Your task to perform on an android device: Open eBay Image 0: 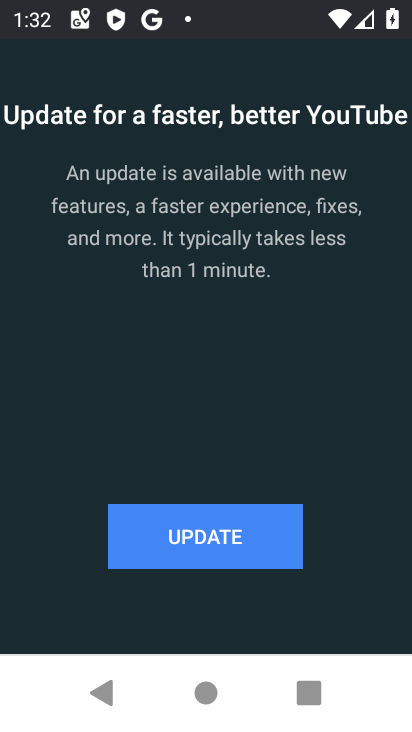
Step 0: press home button
Your task to perform on an android device: Open eBay Image 1: 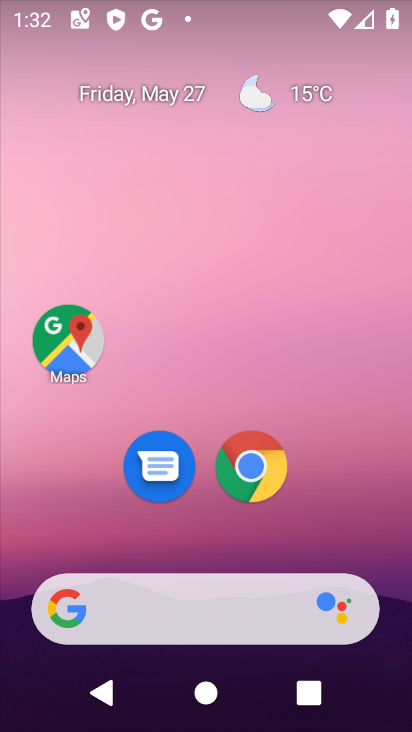
Step 1: click (268, 466)
Your task to perform on an android device: Open eBay Image 2: 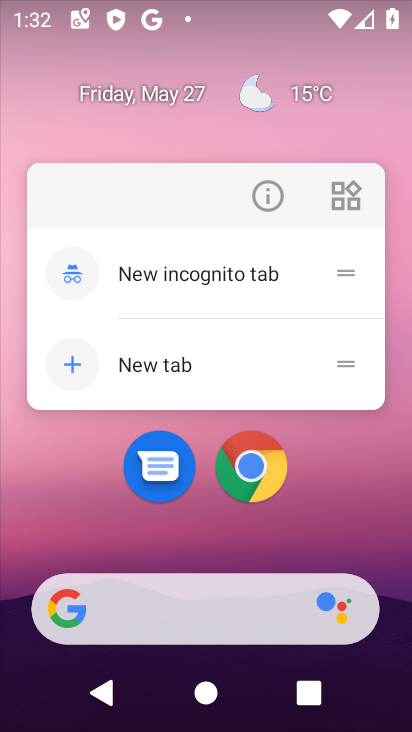
Step 2: click (261, 466)
Your task to perform on an android device: Open eBay Image 3: 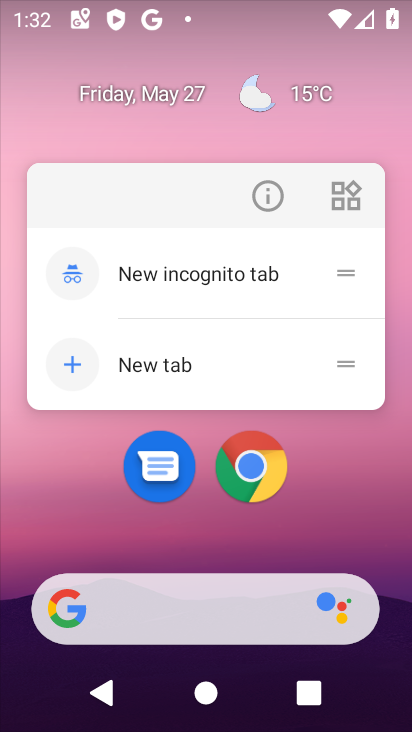
Step 3: click (261, 466)
Your task to perform on an android device: Open eBay Image 4: 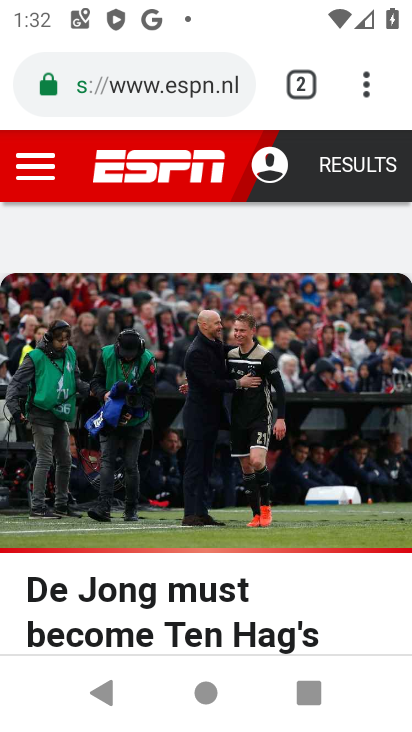
Step 4: drag from (373, 82) to (300, 254)
Your task to perform on an android device: Open eBay Image 5: 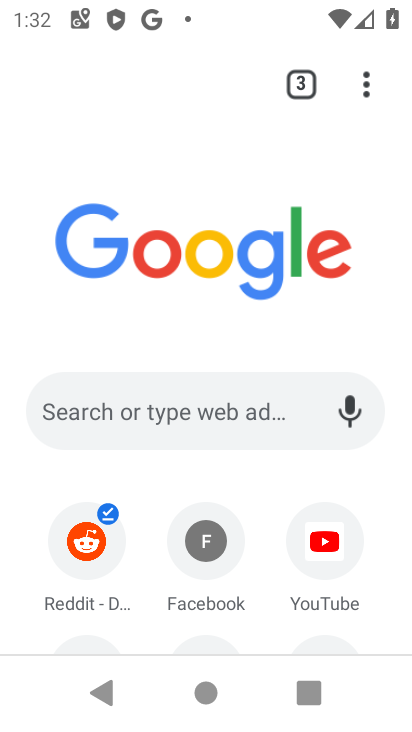
Step 5: drag from (259, 531) to (361, 252)
Your task to perform on an android device: Open eBay Image 6: 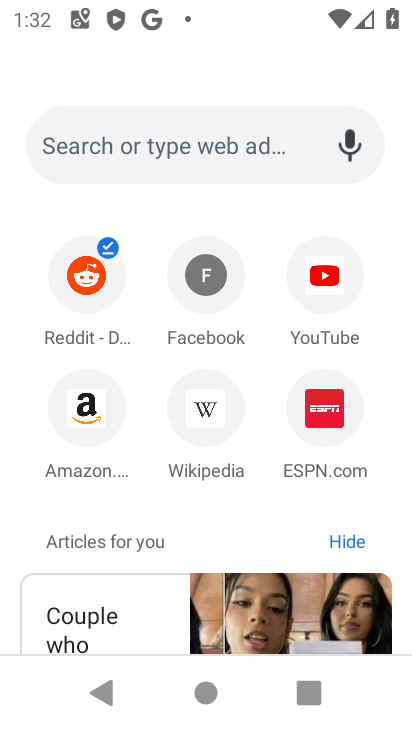
Step 6: click (183, 154)
Your task to perform on an android device: Open eBay Image 7: 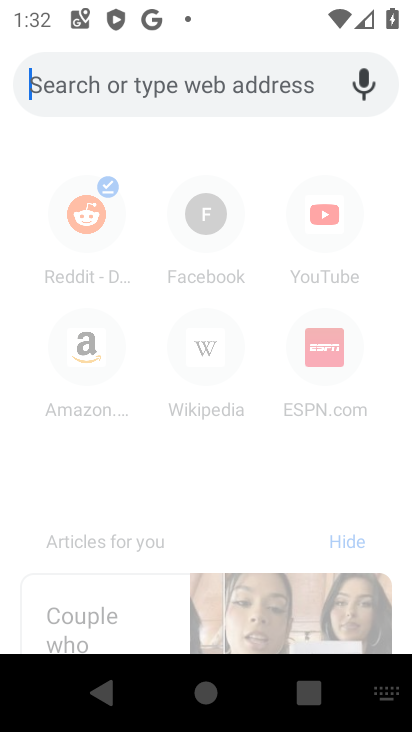
Step 7: type "eBay"
Your task to perform on an android device: Open eBay Image 8: 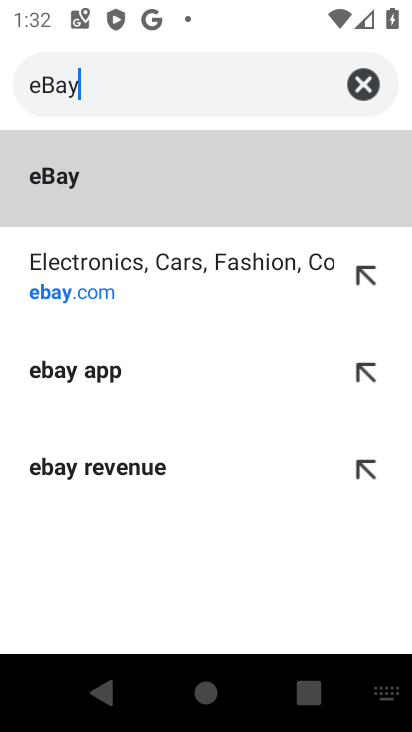
Step 8: click (167, 150)
Your task to perform on an android device: Open eBay Image 9: 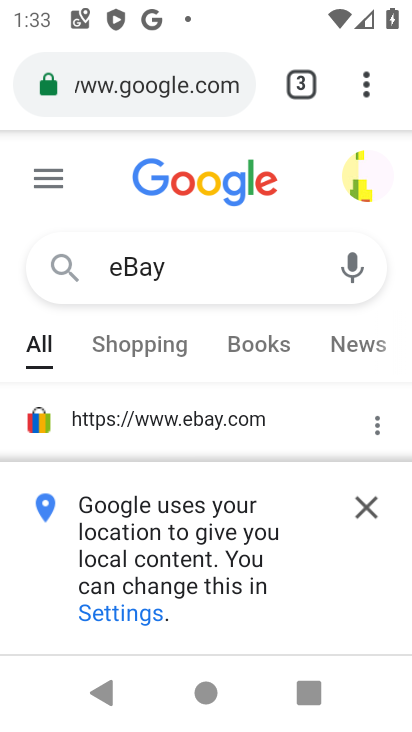
Step 9: click (393, 512)
Your task to perform on an android device: Open eBay Image 10: 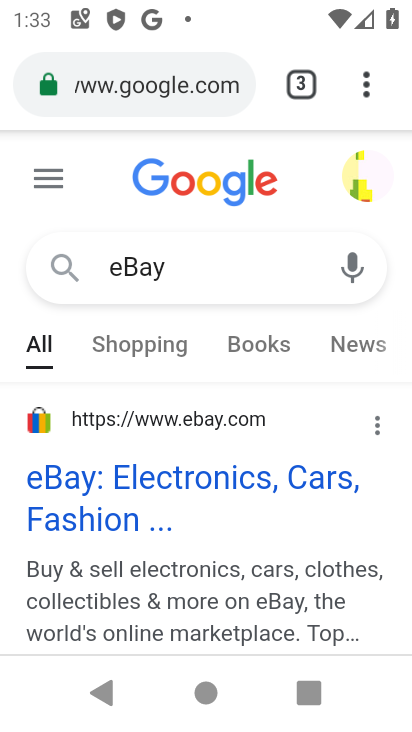
Step 10: click (102, 491)
Your task to perform on an android device: Open eBay Image 11: 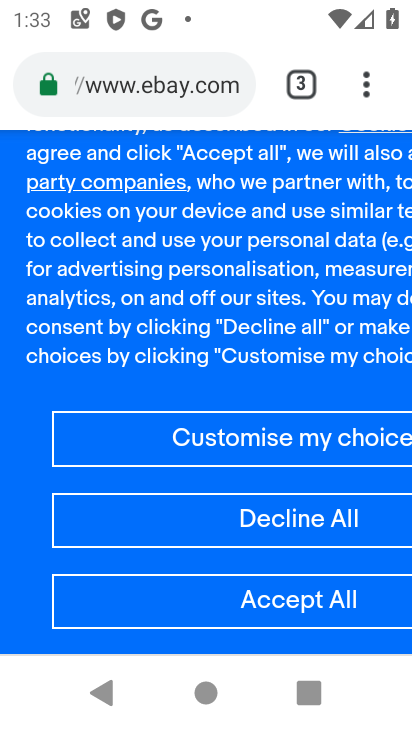
Step 11: click (294, 615)
Your task to perform on an android device: Open eBay Image 12: 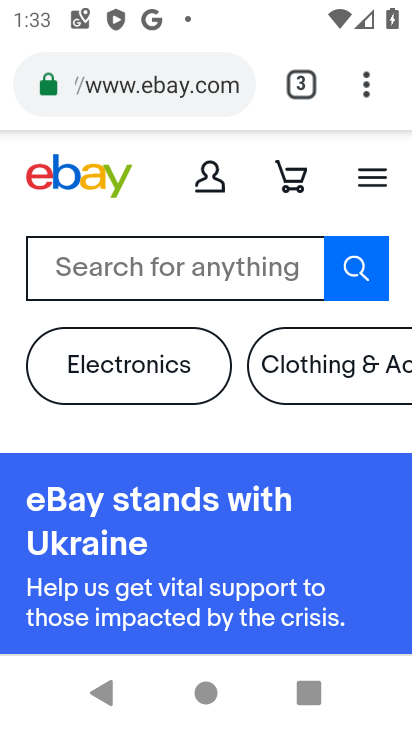
Step 12: task complete